Your task to perform on an android device: Go to eBay Image 0: 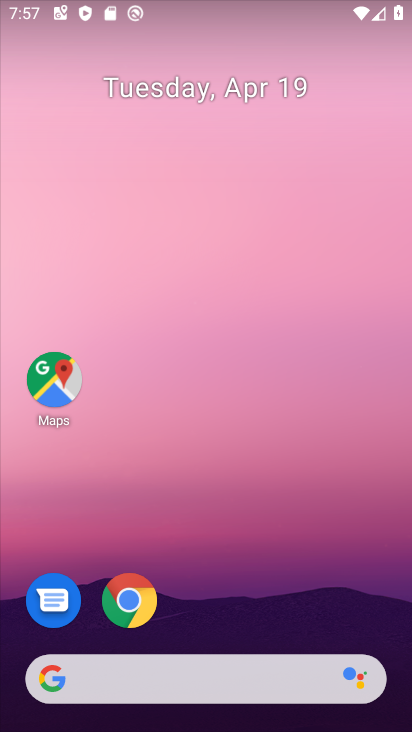
Step 0: drag from (310, 579) to (186, 102)
Your task to perform on an android device: Go to eBay Image 1: 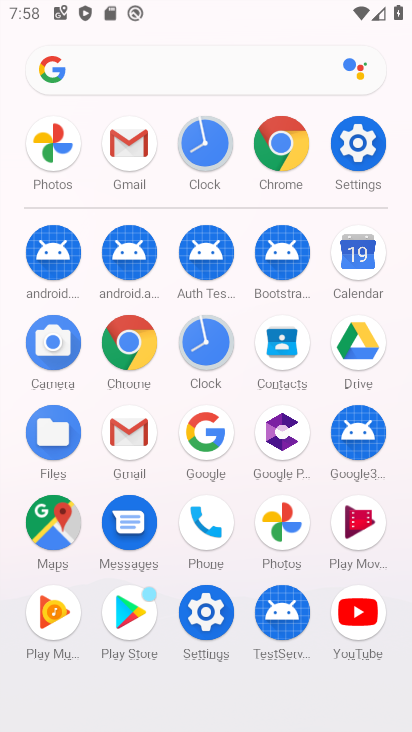
Step 1: click (117, 346)
Your task to perform on an android device: Go to eBay Image 2: 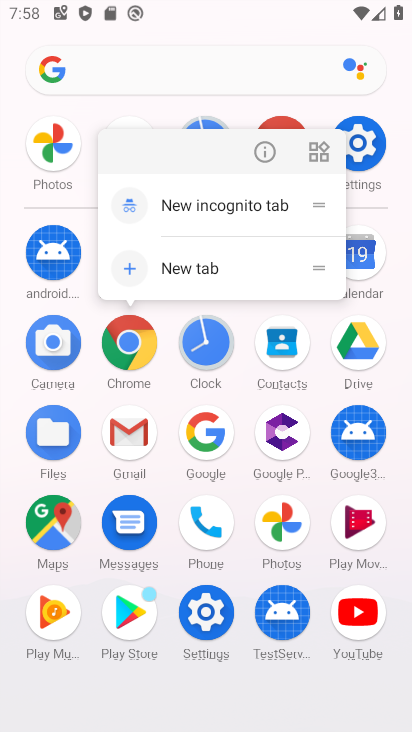
Step 2: click (119, 357)
Your task to perform on an android device: Go to eBay Image 3: 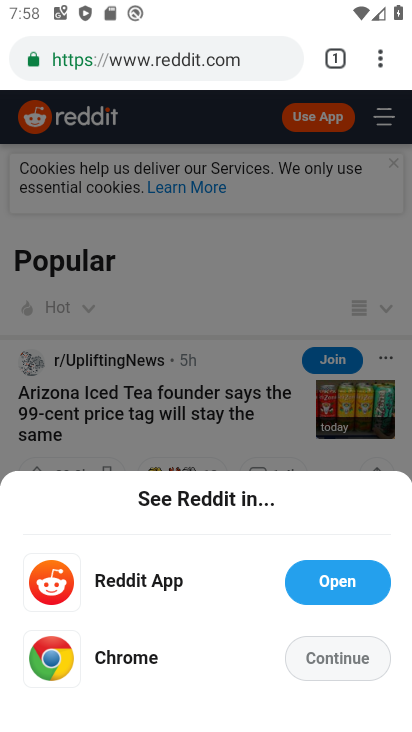
Step 3: press back button
Your task to perform on an android device: Go to eBay Image 4: 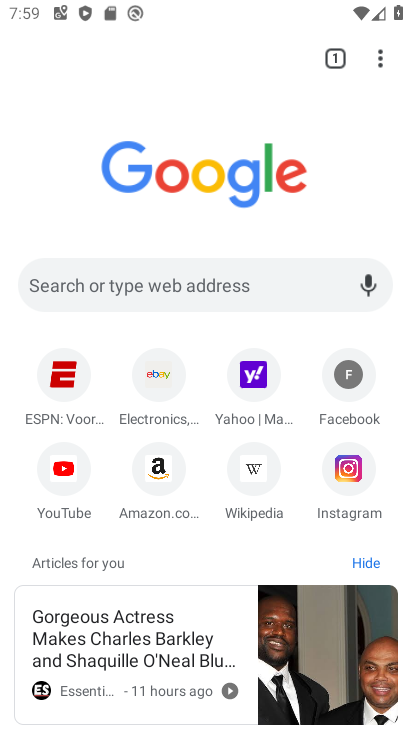
Step 4: click (159, 361)
Your task to perform on an android device: Go to eBay Image 5: 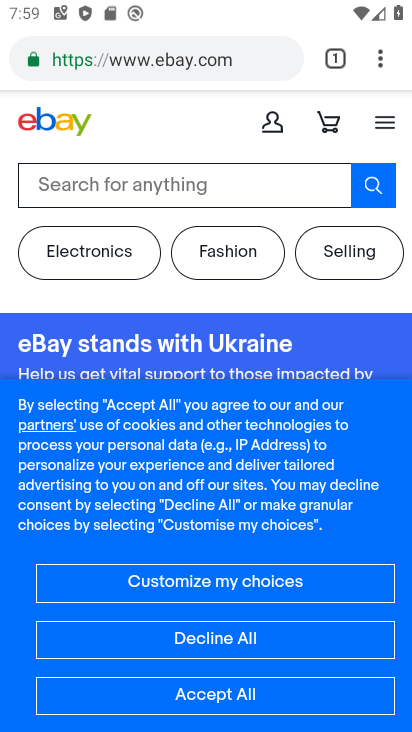
Step 5: task complete